Your task to perform on an android device: Open calendar and show me the second week of next month Image 0: 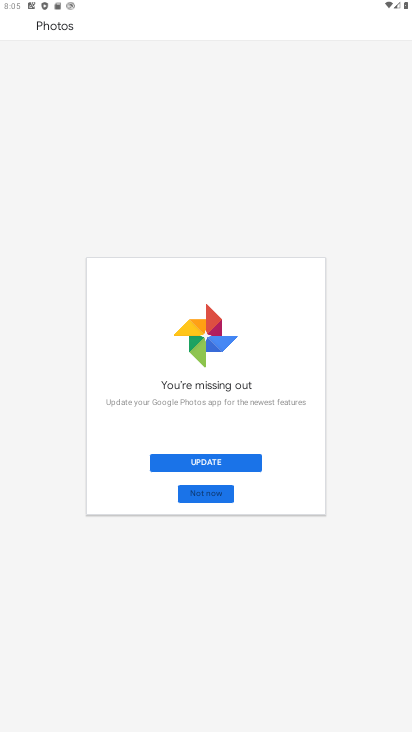
Step 0: press home button
Your task to perform on an android device: Open calendar and show me the second week of next month Image 1: 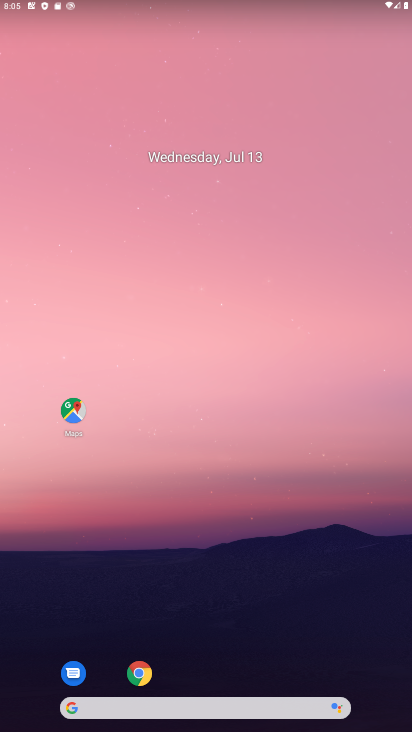
Step 1: drag from (248, 585) to (270, 157)
Your task to perform on an android device: Open calendar and show me the second week of next month Image 2: 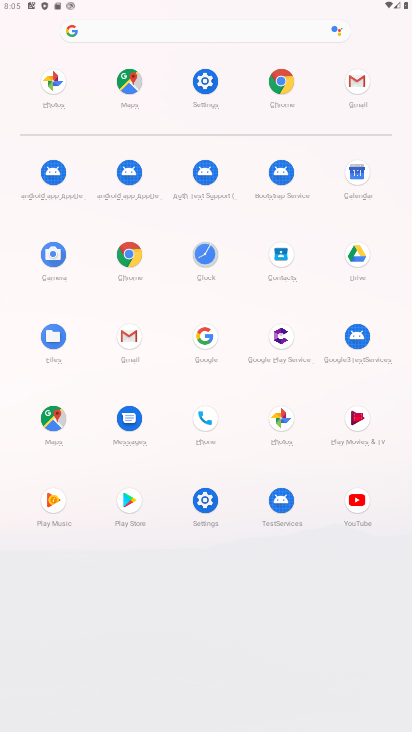
Step 2: click (360, 172)
Your task to perform on an android device: Open calendar and show me the second week of next month Image 3: 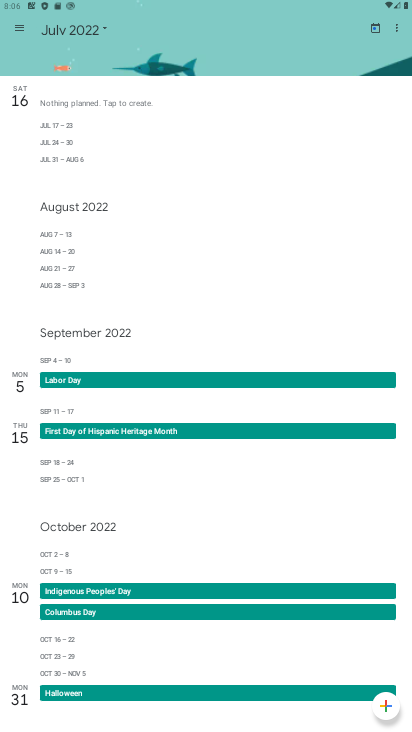
Step 3: click (80, 34)
Your task to perform on an android device: Open calendar and show me the second week of next month Image 4: 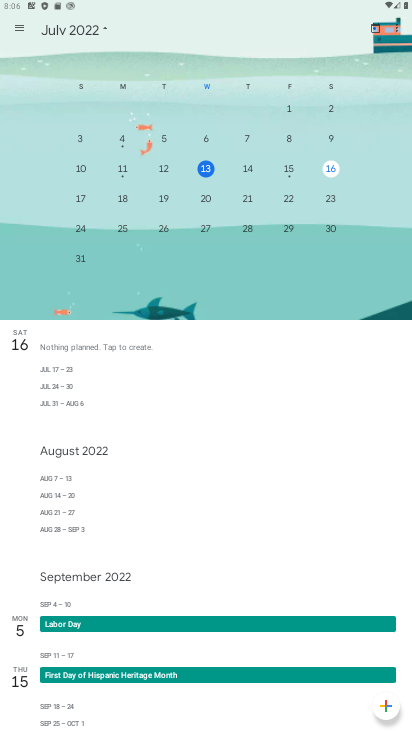
Step 4: drag from (336, 186) to (50, 165)
Your task to perform on an android device: Open calendar and show me the second week of next month Image 5: 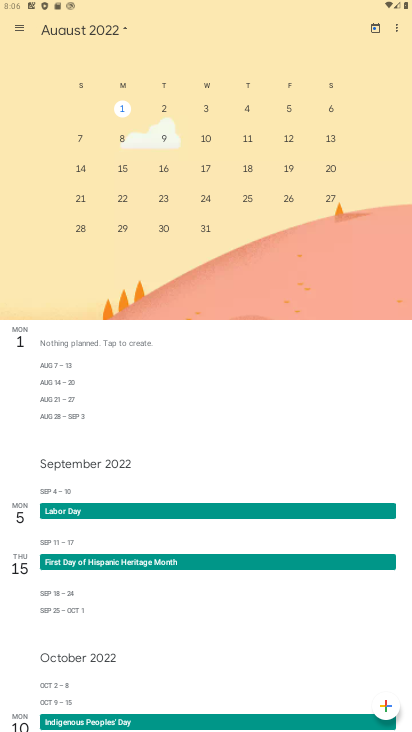
Step 5: click (198, 136)
Your task to perform on an android device: Open calendar and show me the second week of next month Image 6: 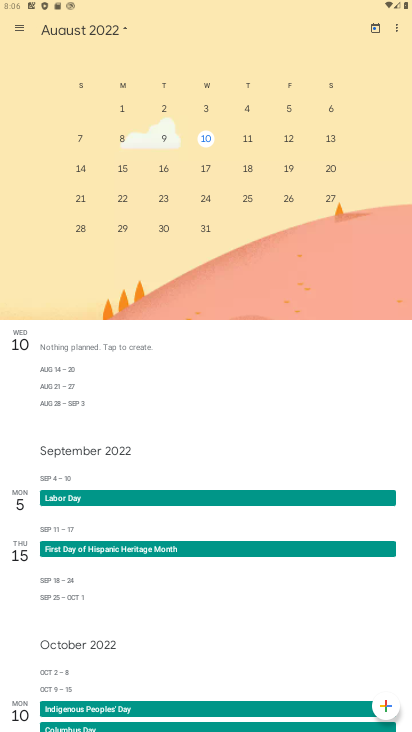
Step 6: click (25, 27)
Your task to perform on an android device: Open calendar and show me the second week of next month Image 7: 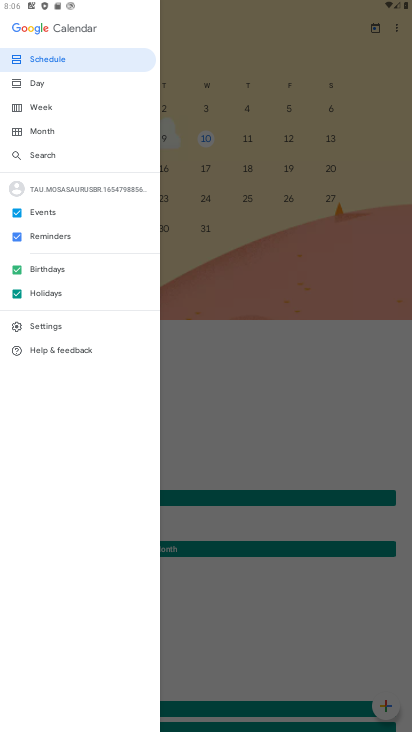
Step 7: click (39, 103)
Your task to perform on an android device: Open calendar and show me the second week of next month Image 8: 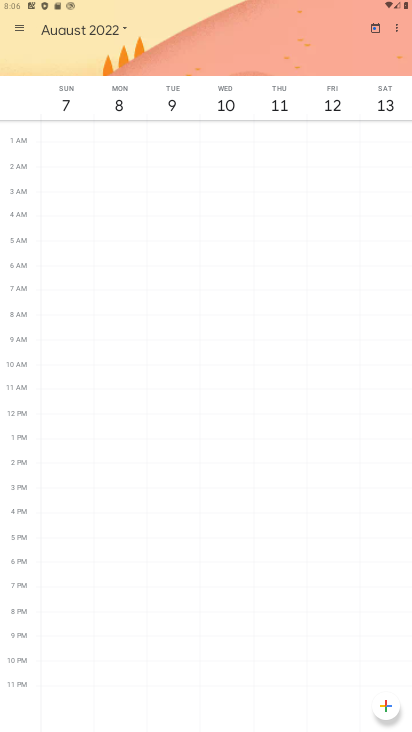
Step 8: task complete